Your task to perform on an android device: change text size in settings app Image 0: 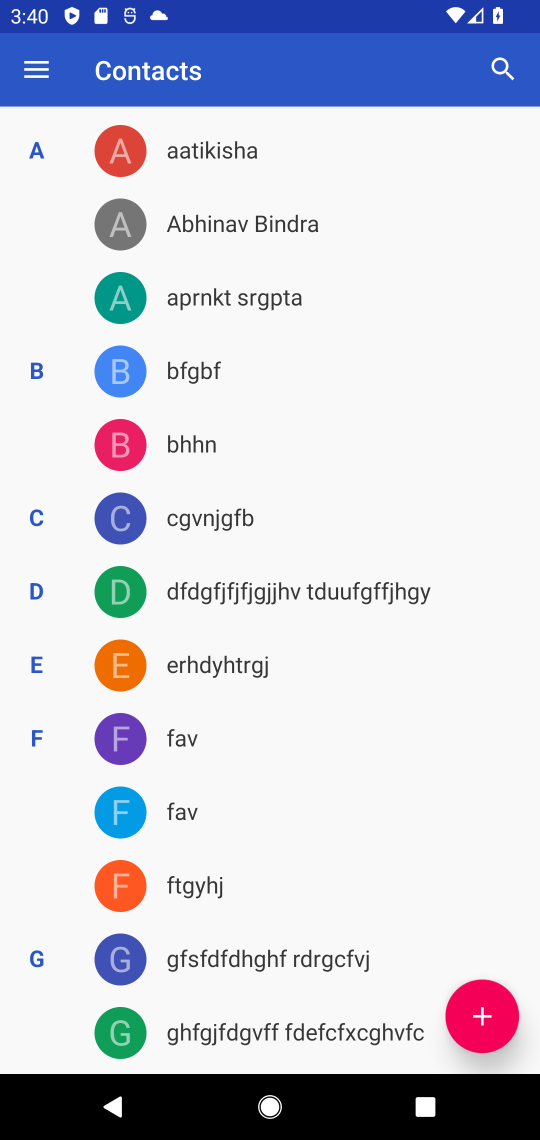
Step 0: press home button
Your task to perform on an android device: change text size in settings app Image 1: 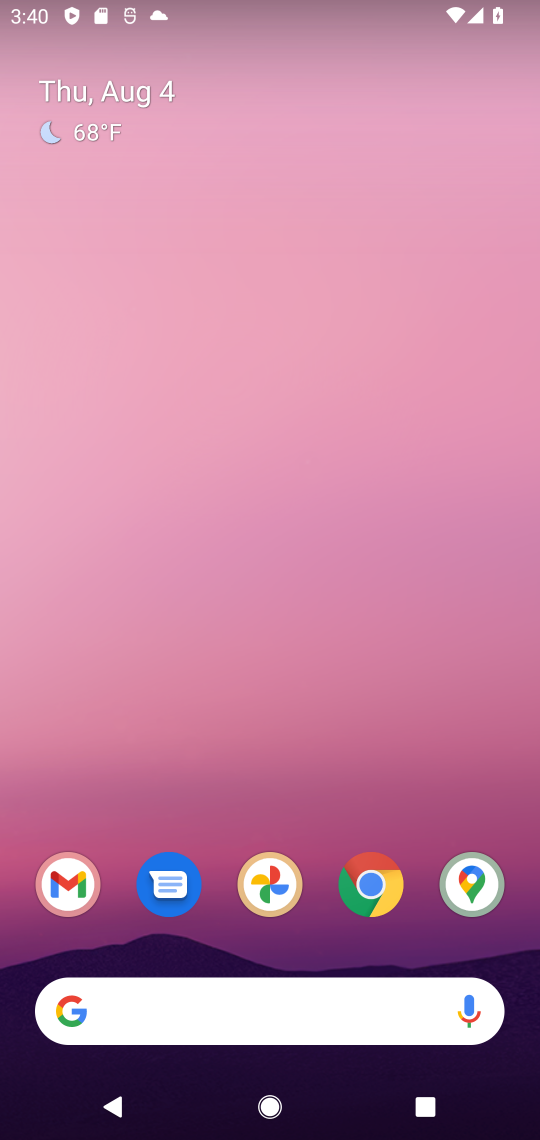
Step 1: drag from (351, 928) to (351, 506)
Your task to perform on an android device: change text size in settings app Image 2: 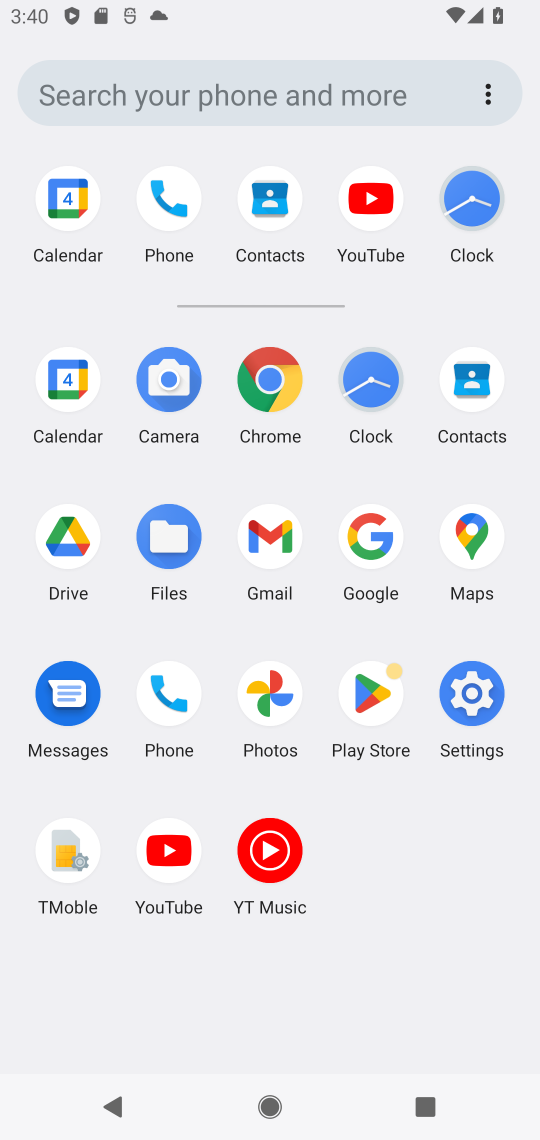
Step 2: click (497, 685)
Your task to perform on an android device: change text size in settings app Image 3: 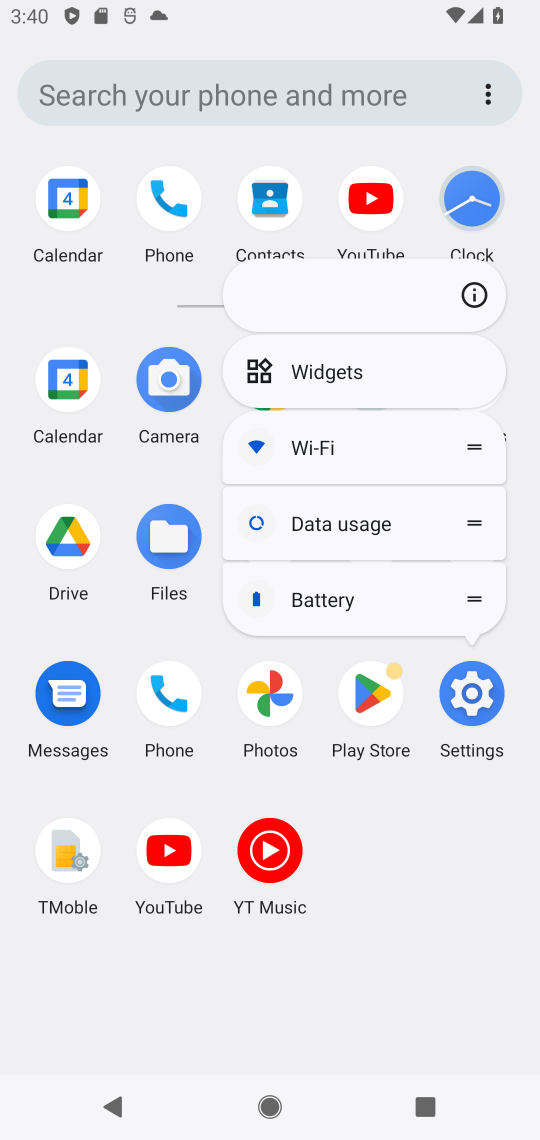
Step 3: click (477, 685)
Your task to perform on an android device: change text size in settings app Image 4: 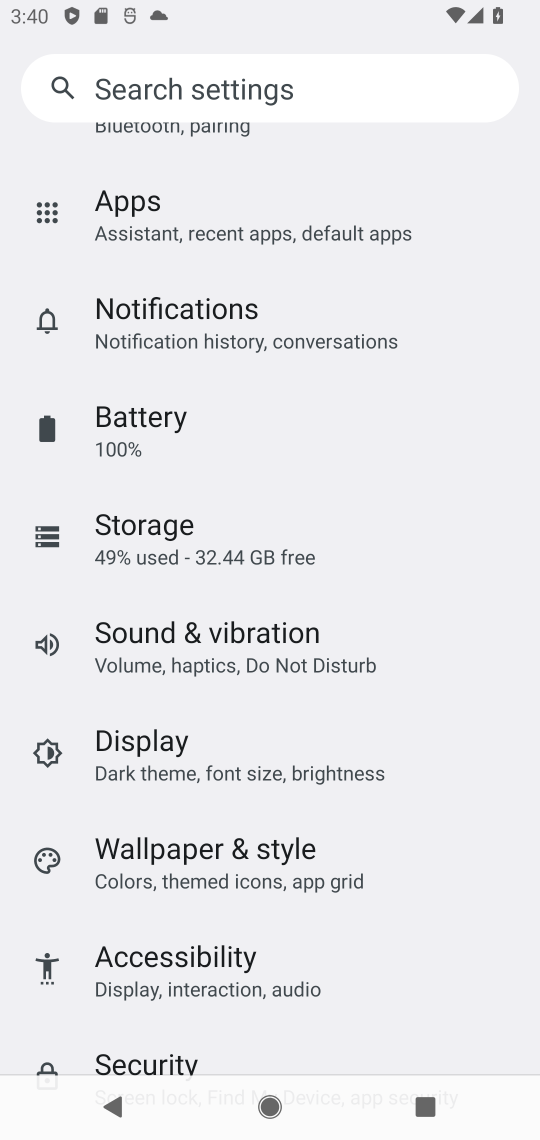
Step 4: drag from (191, 857) to (275, 351)
Your task to perform on an android device: change text size in settings app Image 5: 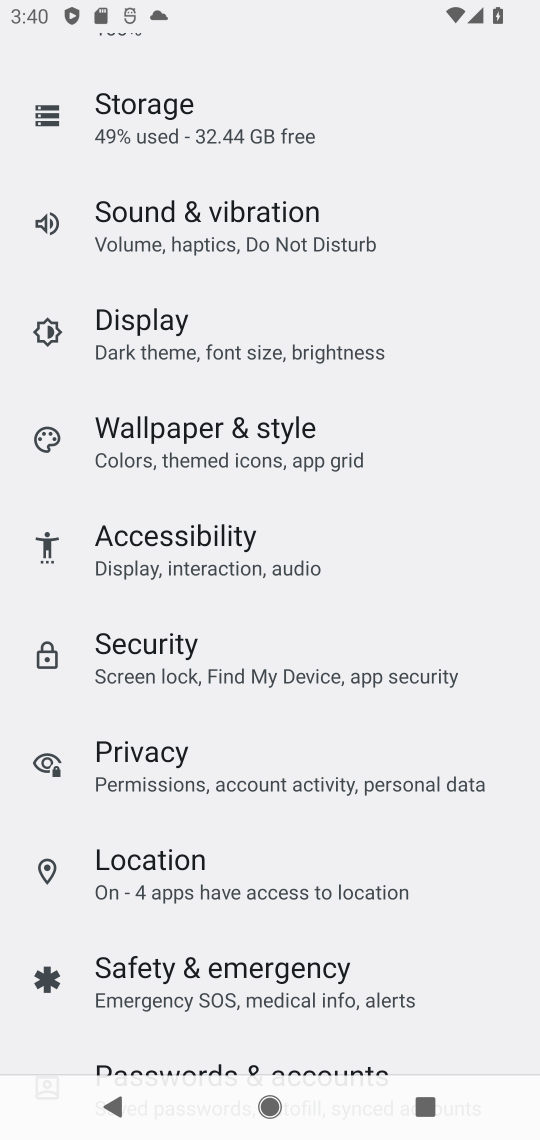
Step 5: drag from (142, 870) to (286, 477)
Your task to perform on an android device: change text size in settings app Image 6: 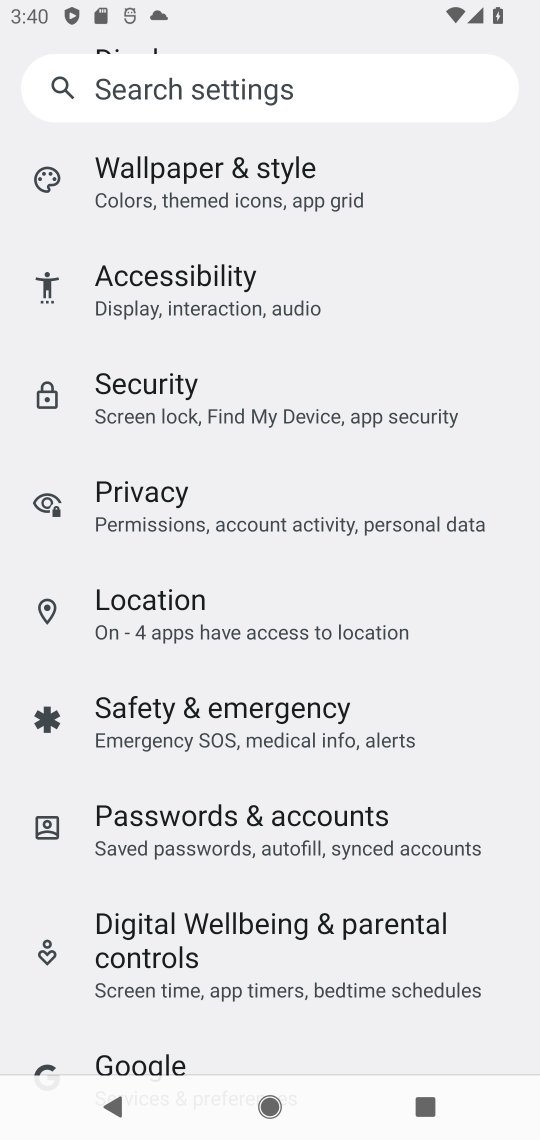
Step 6: click (186, 300)
Your task to perform on an android device: change text size in settings app Image 7: 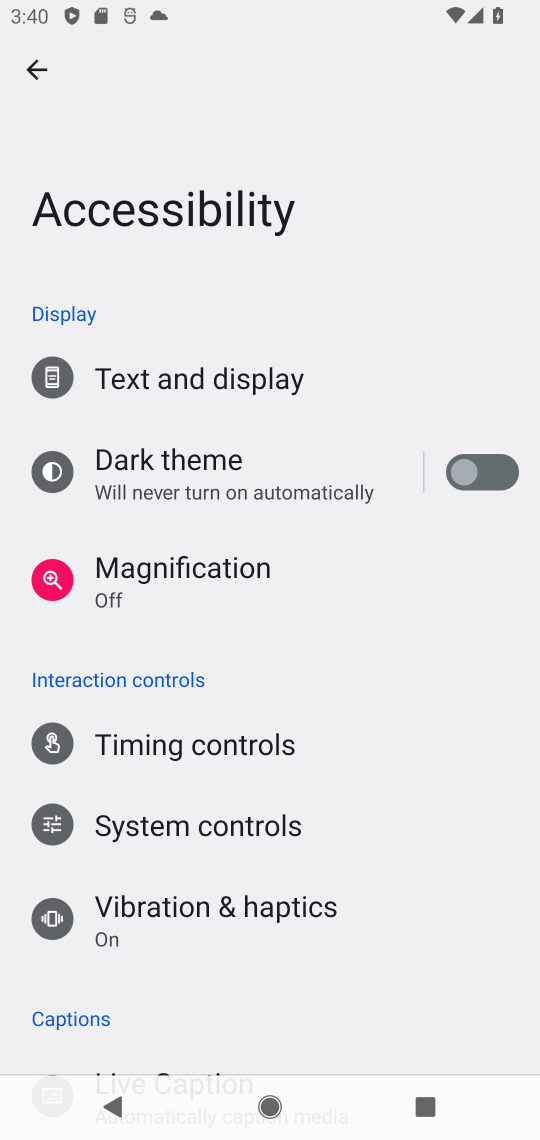
Step 7: click (194, 368)
Your task to perform on an android device: change text size in settings app Image 8: 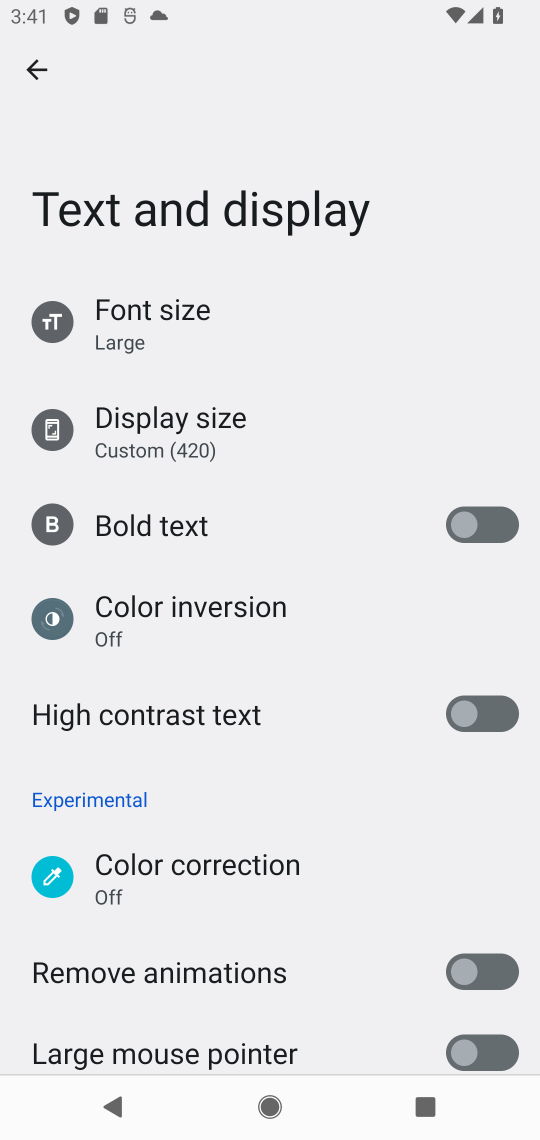
Step 8: click (150, 339)
Your task to perform on an android device: change text size in settings app Image 9: 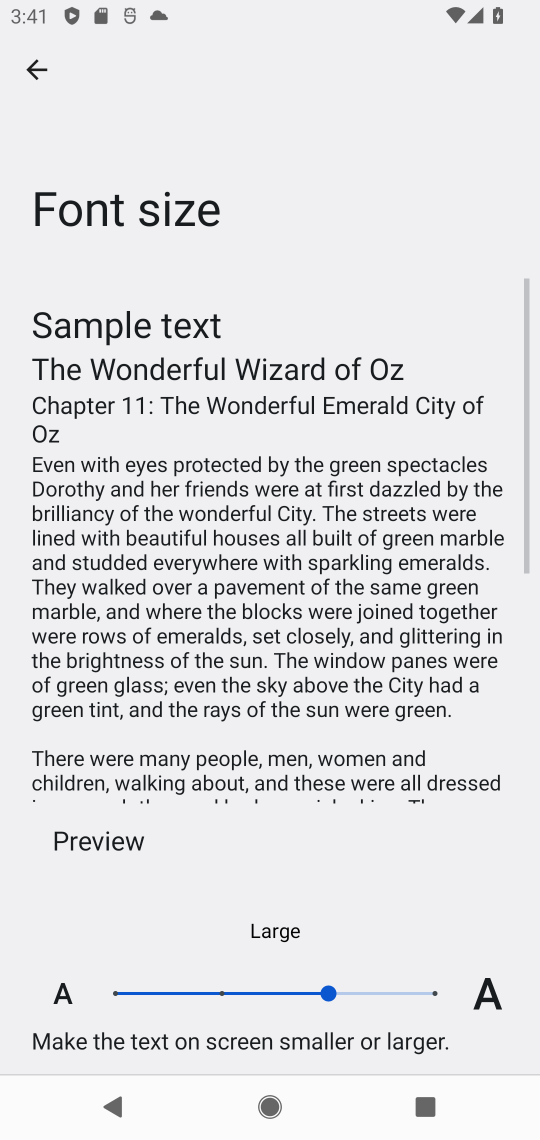
Step 9: click (426, 995)
Your task to perform on an android device: change text size in settings app Image 10: 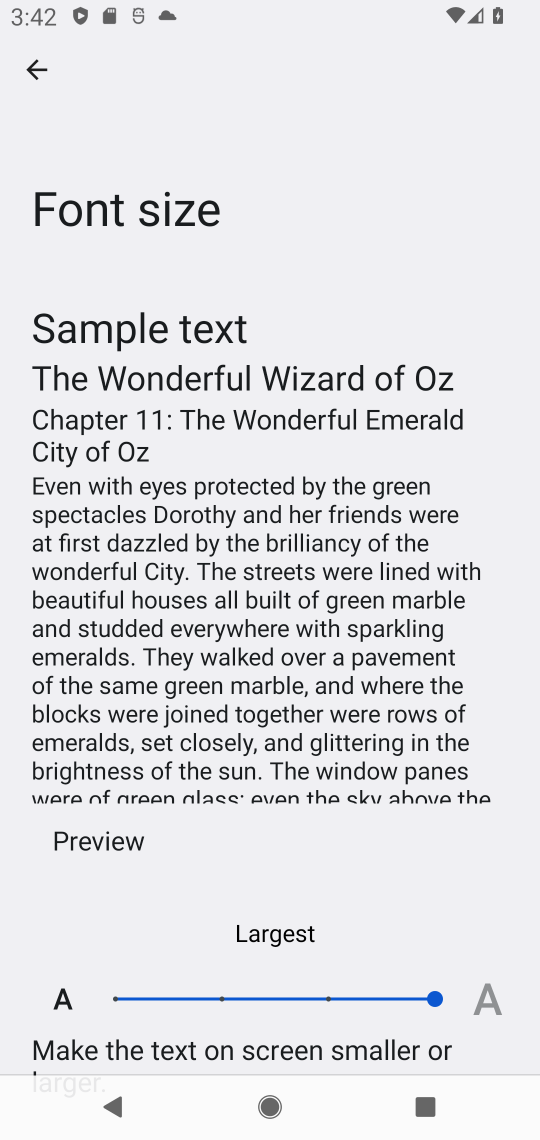
Step 10: task complete